Your task to perform on an android device: Go to eBay Image 0: 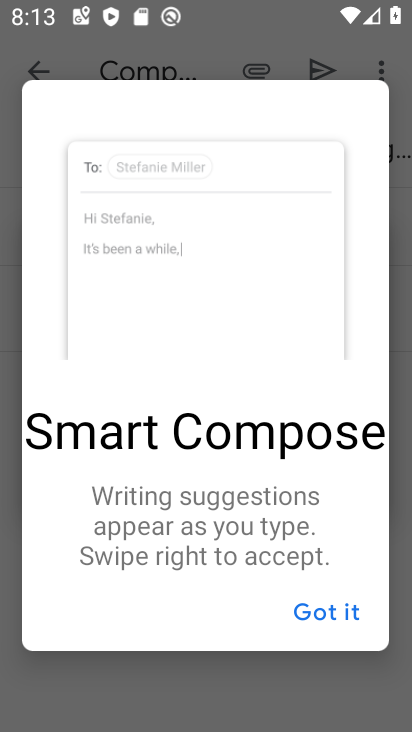
Step 0: press home button
Your task to perform on an android device: Go to eBay Image 1: 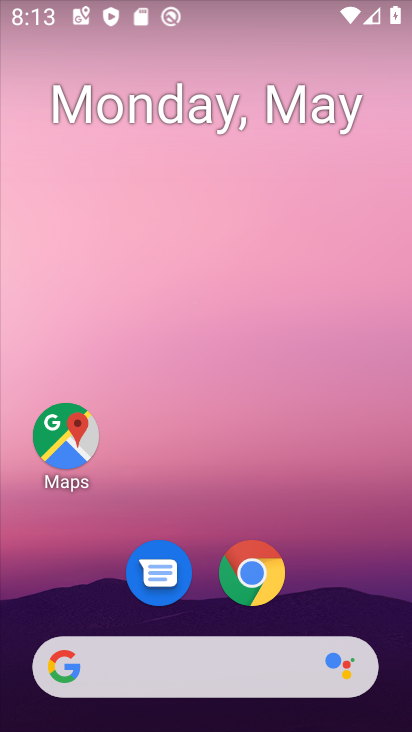
Step 1: click (239, 654)
Your task to perform on an android device: Go to eBay Image 2: 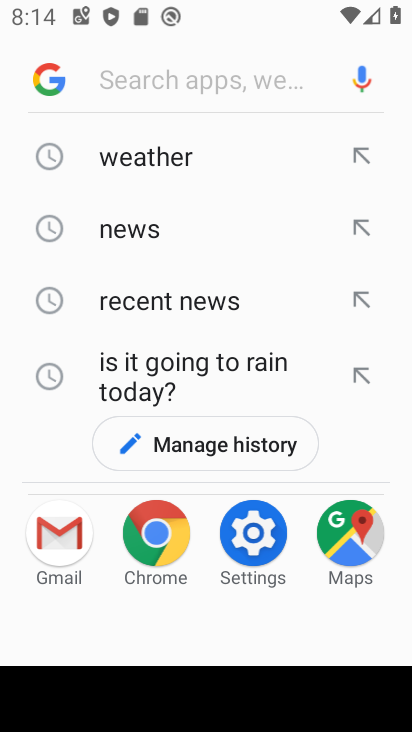
Step 2: type "ebay"
Your task to perform on an android device: Go to eBay Image 3: 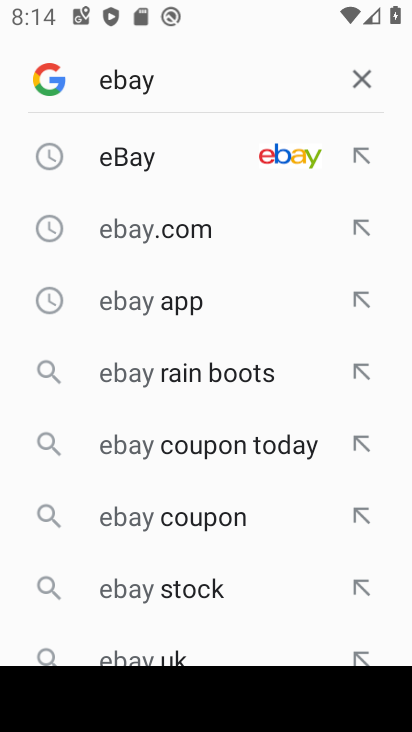
Step 3: click (261, 162)
Your task to perform on an android device: Go to eBay Image 4: 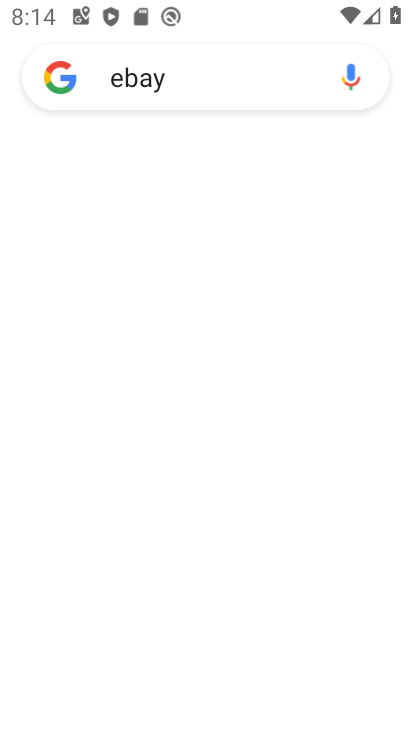
Step 4: task complete